Your task to perform on an android device: Go to internet settings Image 0: 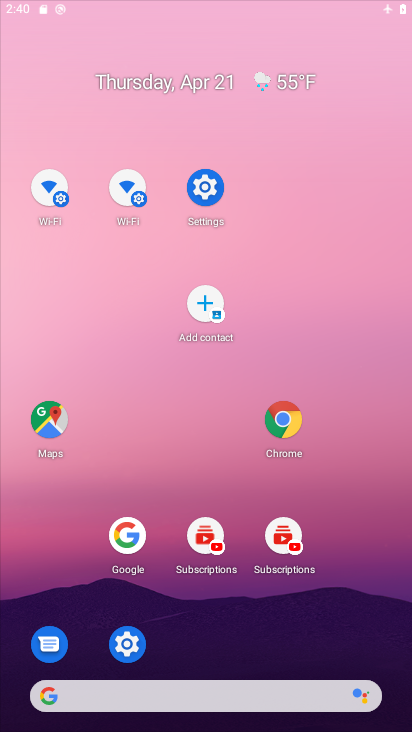
Step 0: click (201, 153)
Your task to perform on an android device: Go to internet settings Image 1: 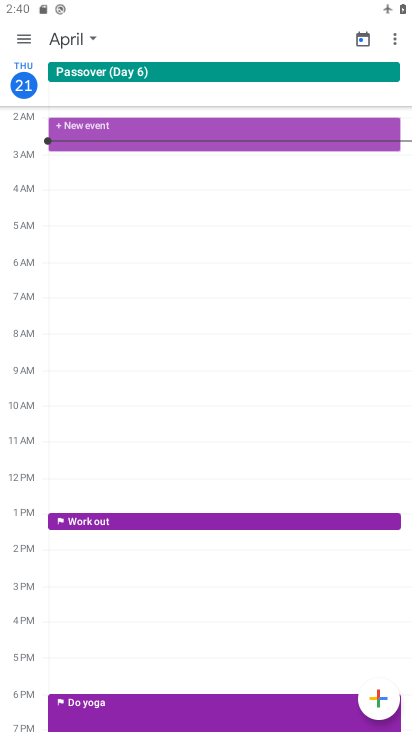
Step 1: press home button
Your task to perform on an android device: Go to internet settings Image 2: 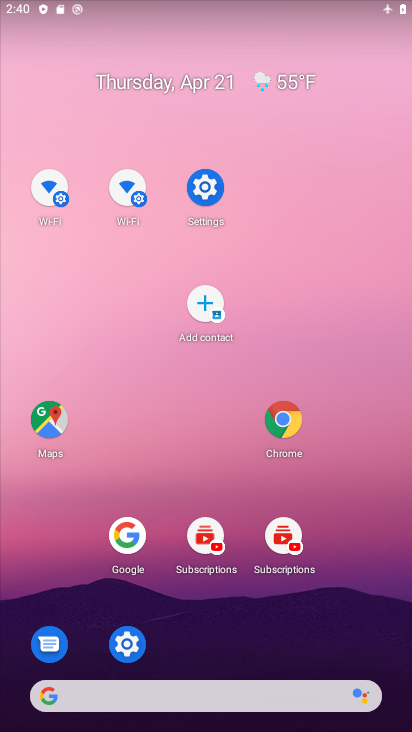
Step 2: drag from (237, 667) to (63, 140)
Your task to perform on an android device: Go to internet settings Image 3: 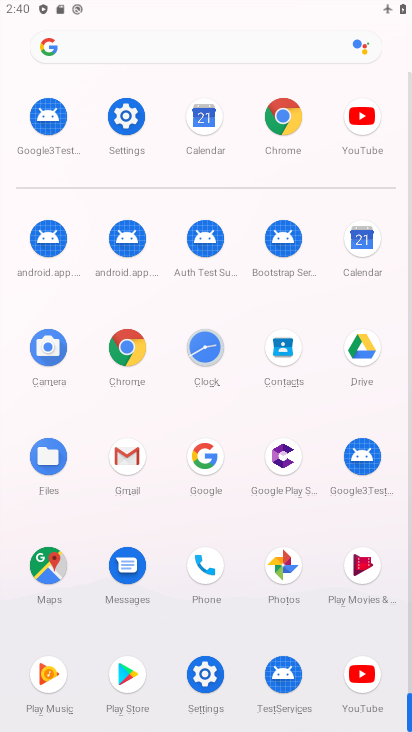
Step 3: click (119, 115)
Your task to perform on an android device: Go to internet settings Image 4: 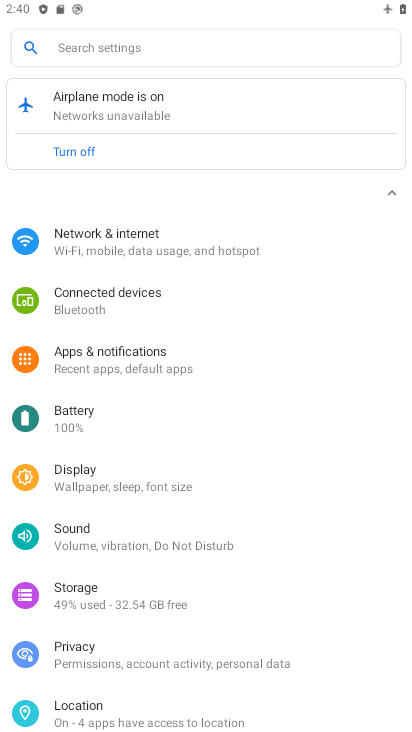
Step 4: click (132, 238)
Your task to perform on an android device: Go to internet settings Image 5: 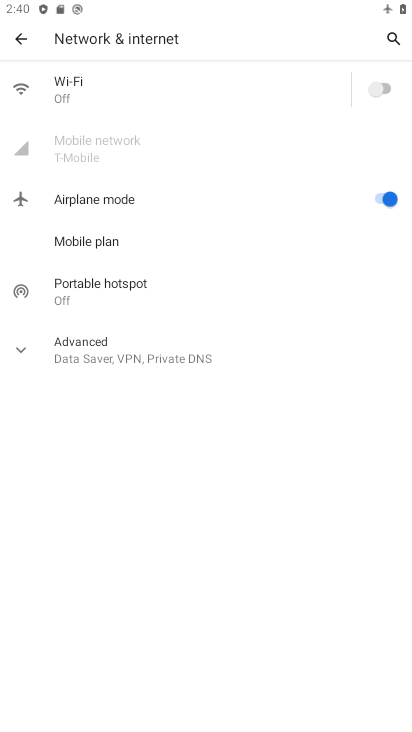
Step 5: task complete